Your task to perform on an android device: add a contact in the contacts app Image 0: 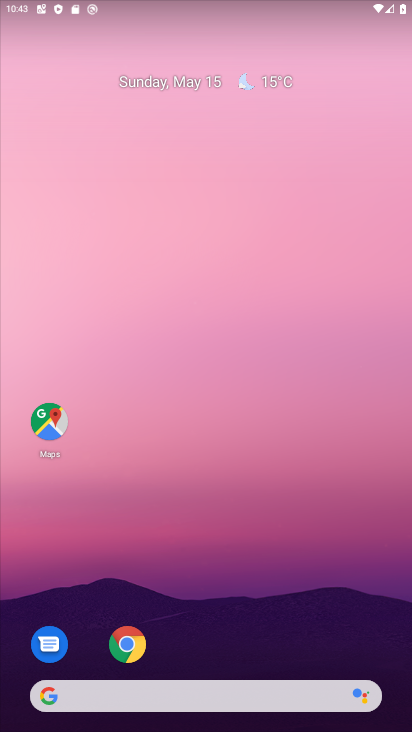
Step 0: drag from (317, 619) to (278, 54)
Your task to perform on an android device: add a contact in the contacts app Image 1: 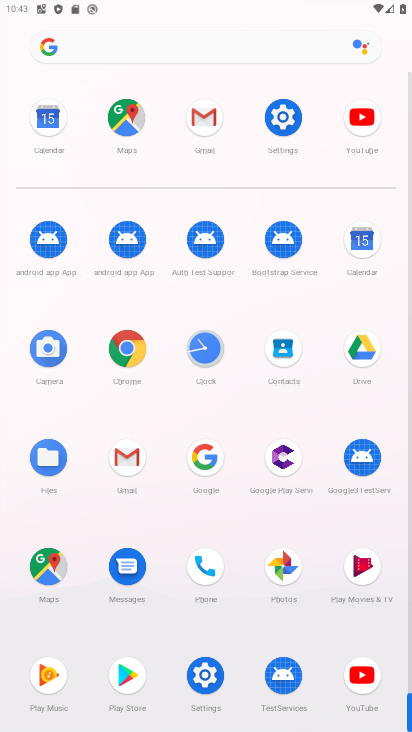
Step 1: click (289, 347)
Your task to perform on an android device: add a contact in the contacts app Image 2: 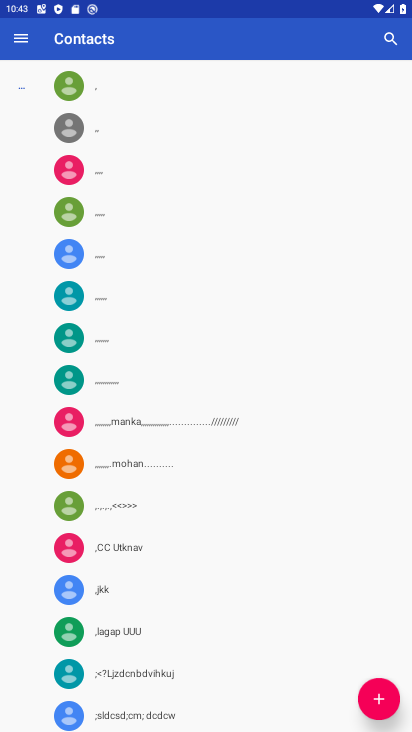
Step 2: click (373, 700)
Your task to perform on an android device: add a contact in the contacts app Image 3: 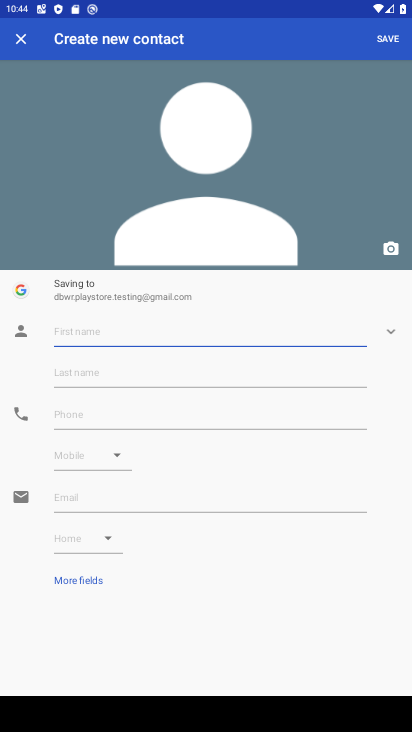
Step 3: type "rg"
Your task to perform on an android device: add a contact in the contacts app Image 4: 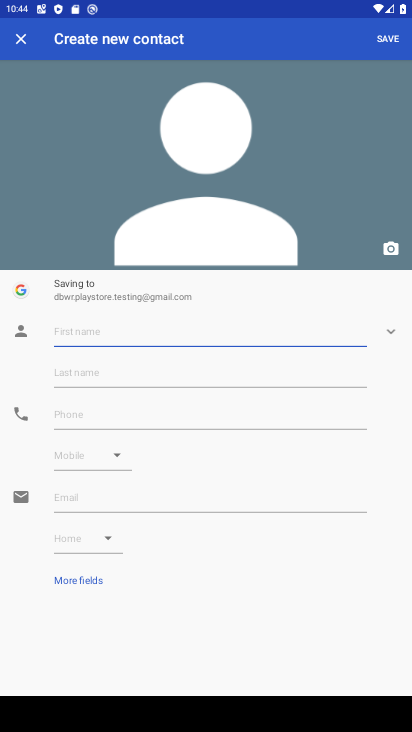
Step 4: click (93, 422)
Your task to perform on an android device: add a contact in the contacts app Image 5: 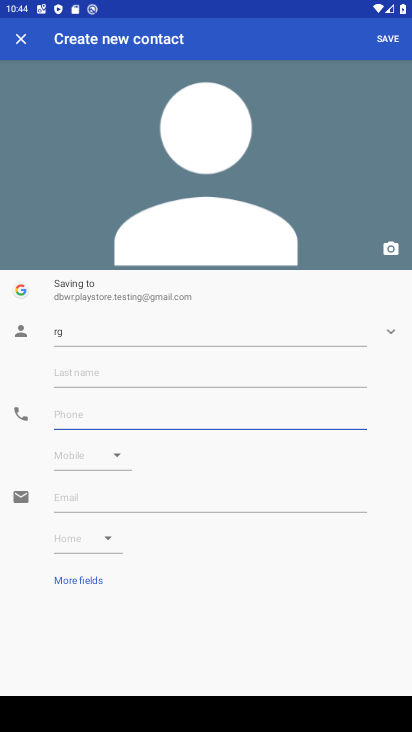
Step 5: type "8888888888"
Your task to perform on an android device: add a contact in the contacts app Image 6: 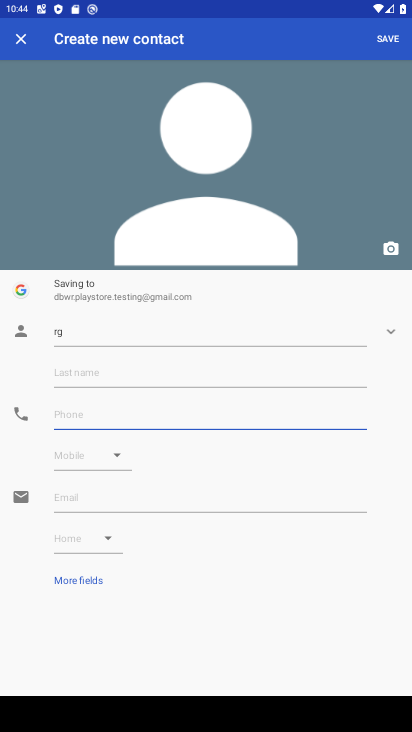
Step 6: click (384, 43)
Your task to perform on an android device: add a contact in the contacts app Image 7: 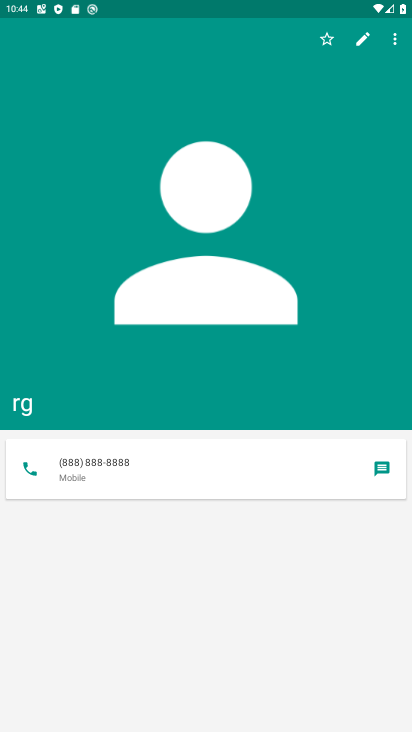
Step 7: task complete